Your task to perform on an android device: Go to Yahoo.com Image 0: 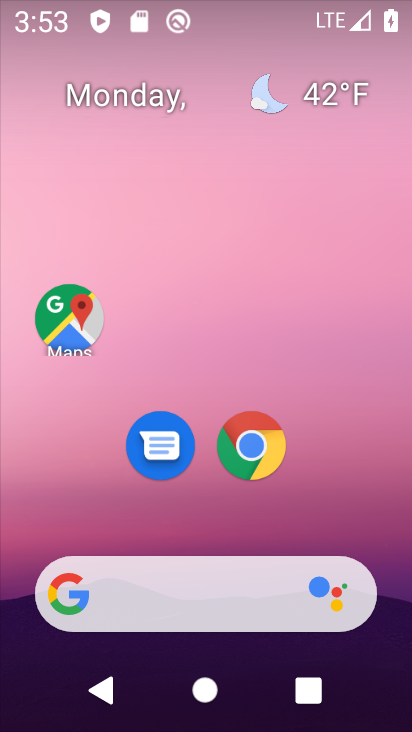
Step 0: click (215, 38)
Your task to perform on an android device: Go to Yahoo.com Image 1: 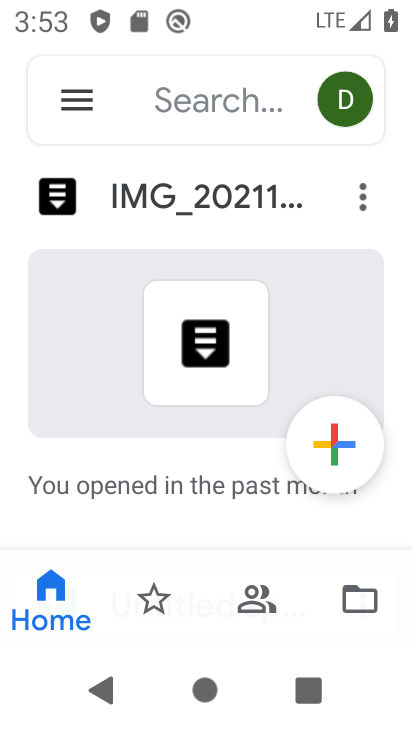
Step 1: press home button
Your task to perform on an android device: Go to Yahoo.com Image 2: 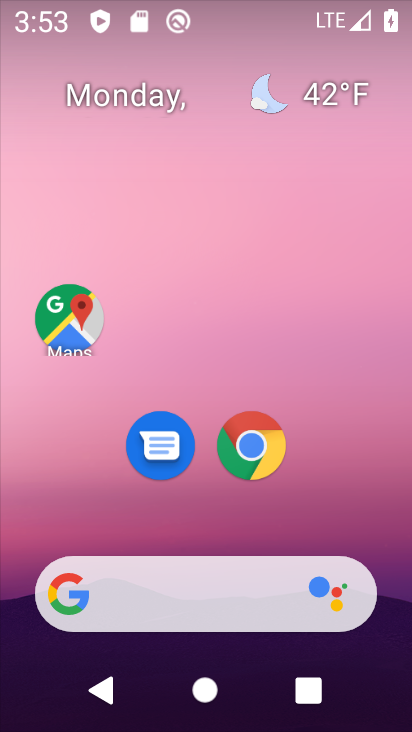
Step 2: drag from (14, 522) to (286, 27)
Your task to perform on an android device: Go to Yahoo.com Image 3: 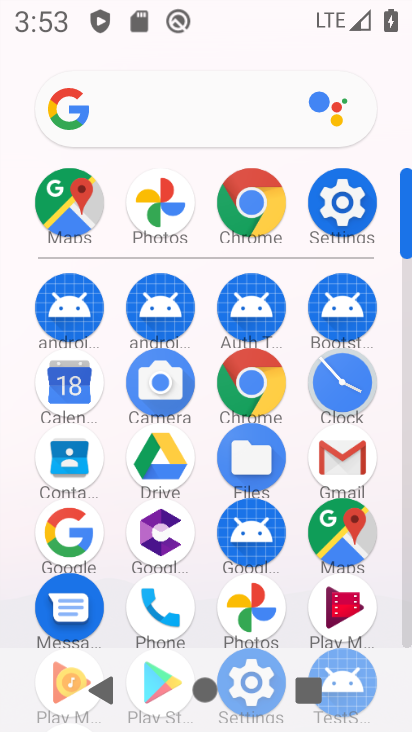
Step 3: click (242, 206)
Your task to perform on an android device: Go to Yahoo.com Image 4: 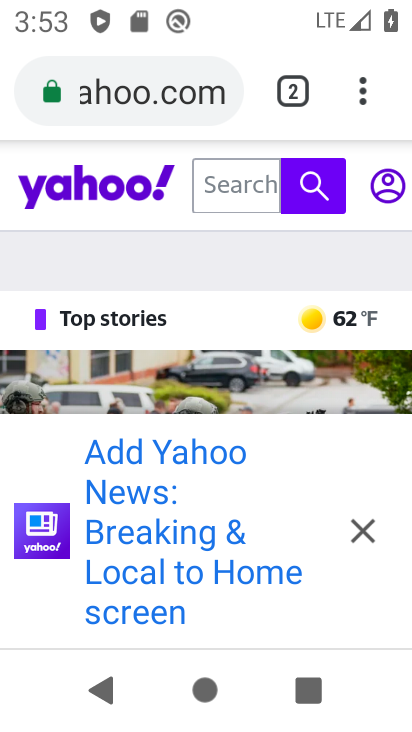
Step 4: task complete